Your task to perform on an android device: choose inbox layout in the gmail app Image 0: 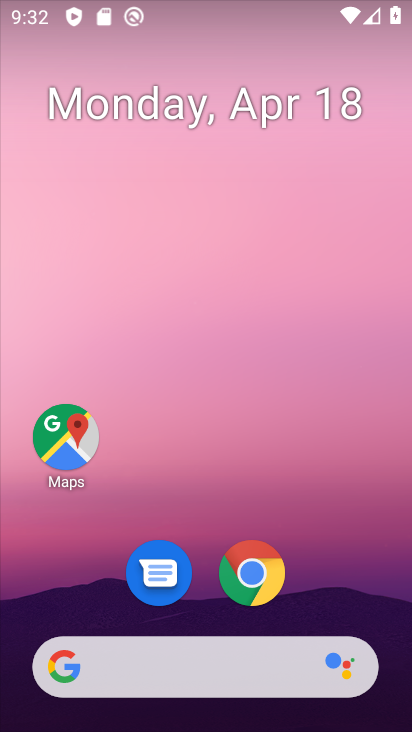
Step 0: drag from (339, 575) to (233, 12)
Your task to perform on an android device: choose inbox layout in the gmail app Image 1: 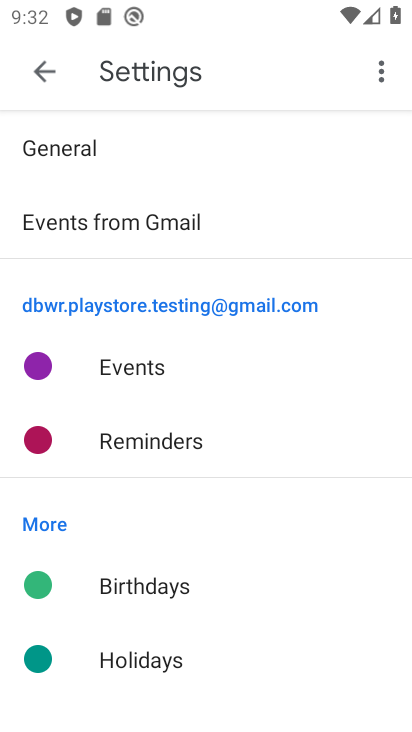
Step 1: press home button
Your task to perform on an android device: choose inbox layout in the gmail app Image 2: 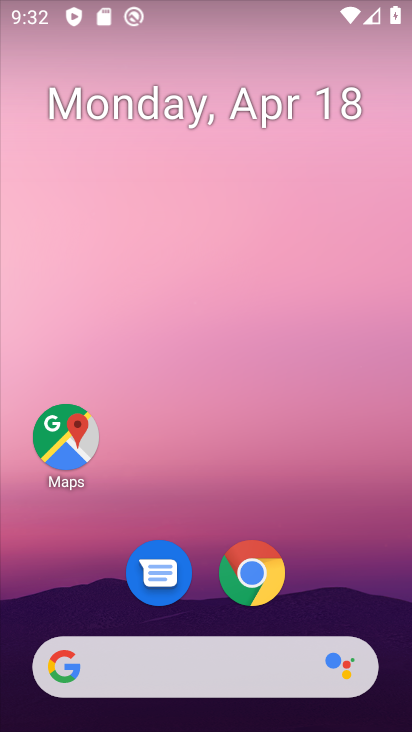
Step 2: drag from (350, 588) to (297, 101)
Your task to perform on an android device: choose inbox layout in the gmail app Image 3: 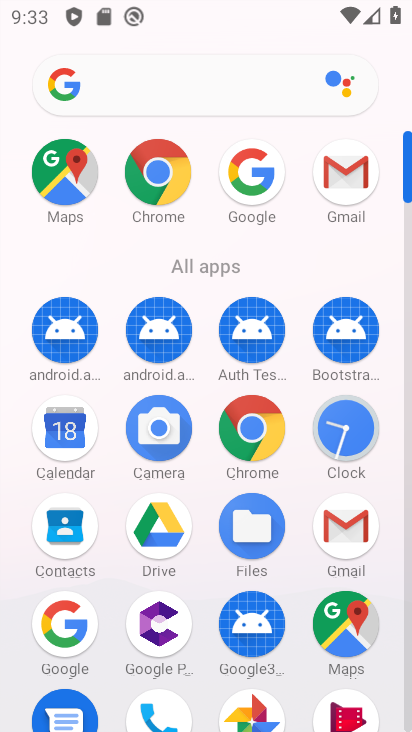
Step 3: click (343, 547)
Your task to perform on an android device: choose inbox layout in the gmail app Image 4: 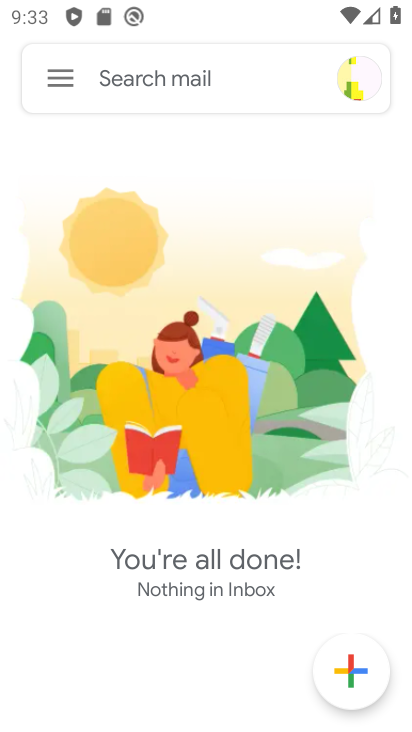
Step 4: click (65, 94)
Your task to perform on an android device: choose inbox layout in the gmail app Image 5: 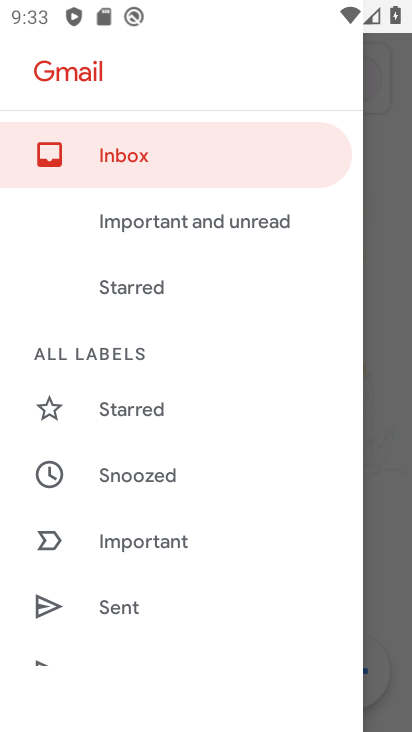
Step 5: click (220, 164)
Your task to perform on an android device: choose inbox layout in the gmail app Image 6: 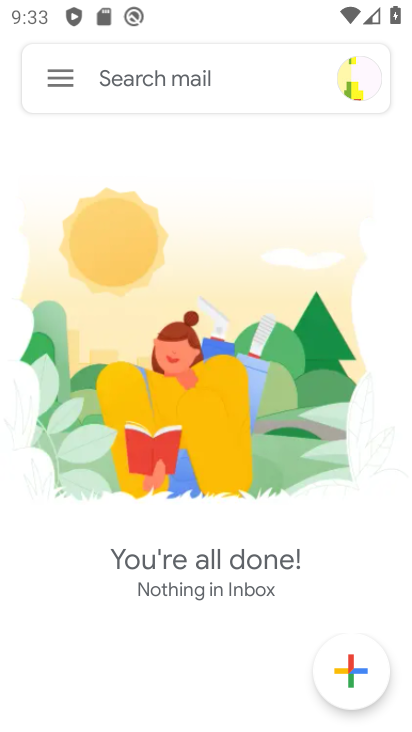
Step 6: task complete